Your task to perform on an android device: all mails in gmail Image 0: 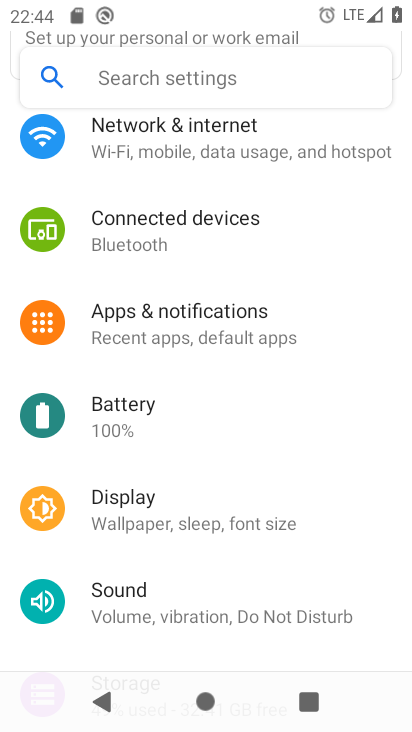
Step 0: press home button
Your task to perform on an android device: all mails in gmail Image 1: 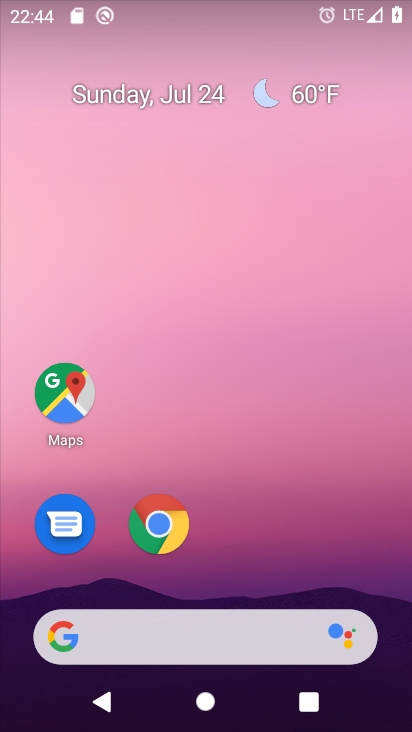
Step 1: drag from (287, 568) to (312, 42)
Your task to perform on an android device: all mails in gmail Image 2: 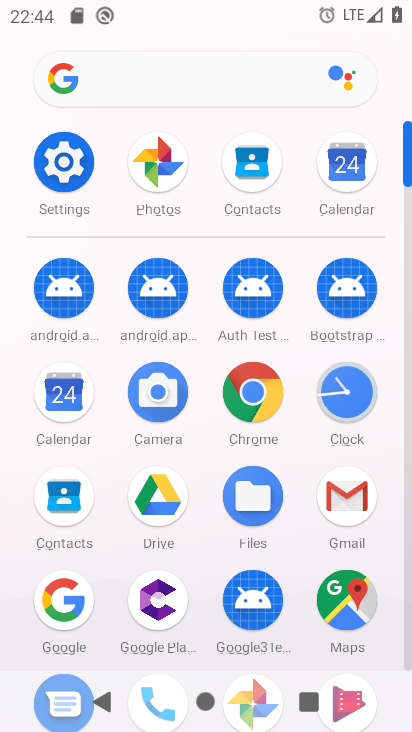
Step 2: click (344, 491)
Your task to perform on an android device: all mails in gmail Image 3: 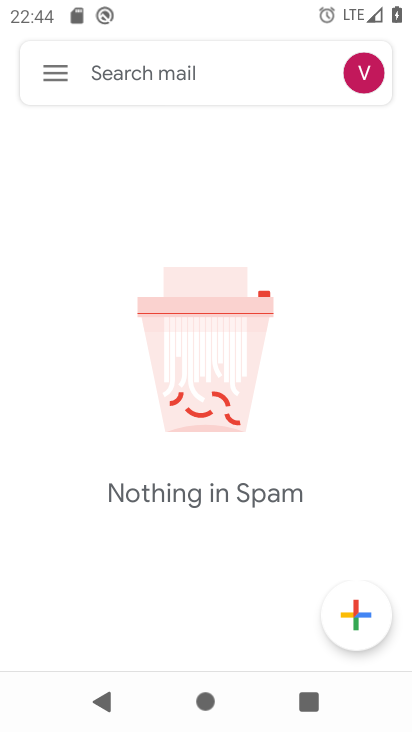
Step 3: click (65, 83)
Your task to perform on an android device: all mails in gmail Image 4: 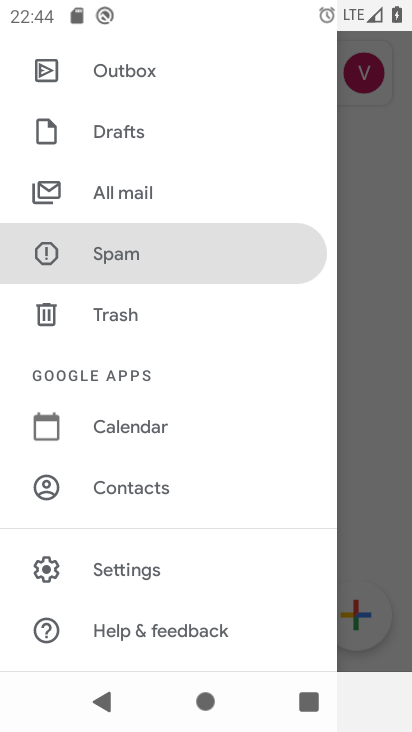
Step 4: click (146, 192)
Your task to perform on an android device: all mails in gmail Image 5: 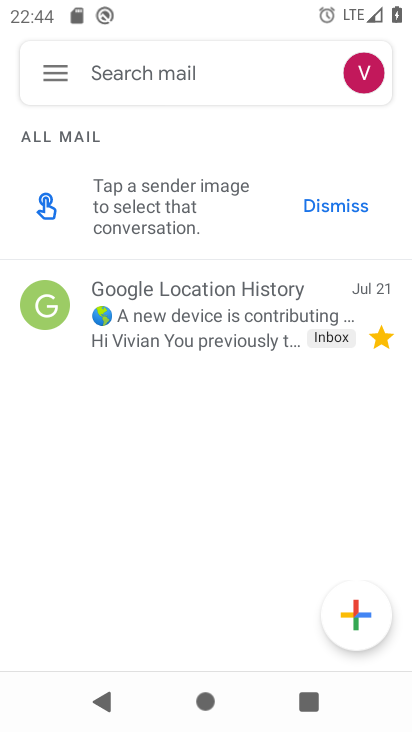
Step 5: task complete